Your task to perform on an android device: remove spam from my inbox in the gmail app Image 0: 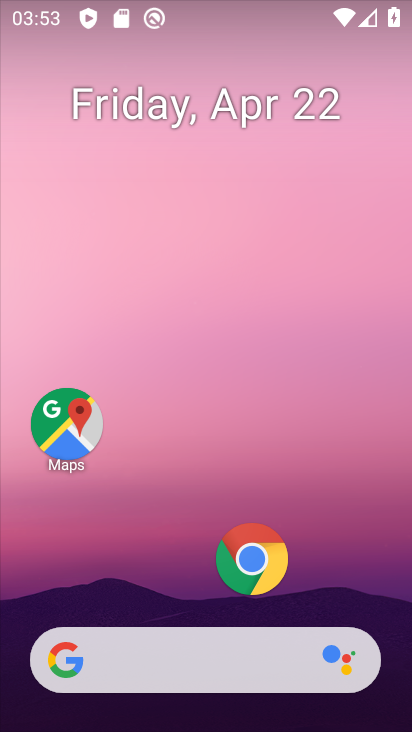
Step 0: drag from (153, 572) to (292, 14)
Your task to perform on an android device: remove spam from my inbox in the gmail app Image 1: 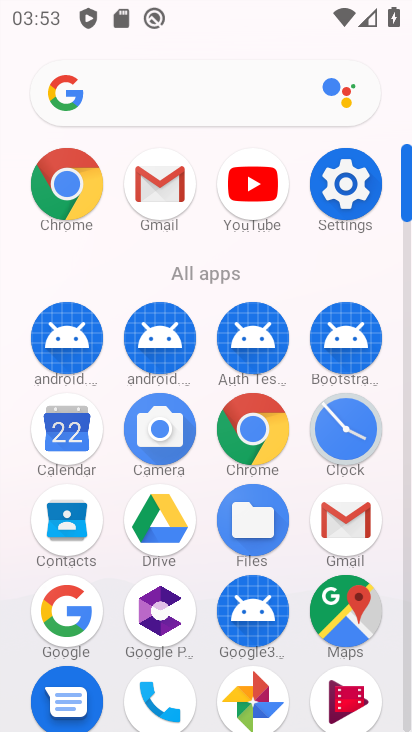
Step 1: click (347, 521)
Your task to perform on an android device: remove spam from my inbox in the gmail app Image 2: 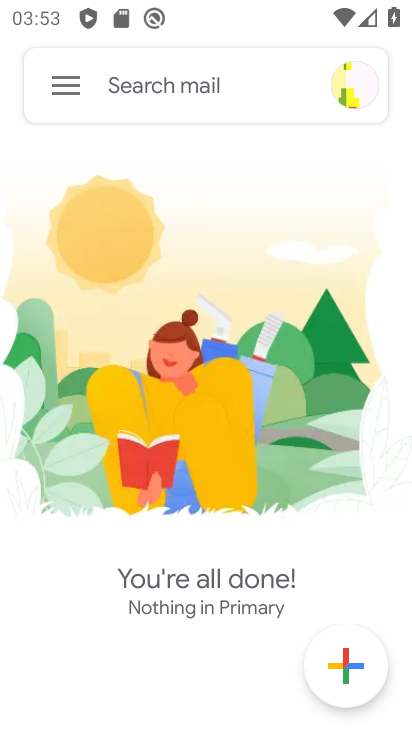
Step 2: click (57, 92)
Your task to perform on an android device: remove spam from my inbox in the gmail app Image 3: 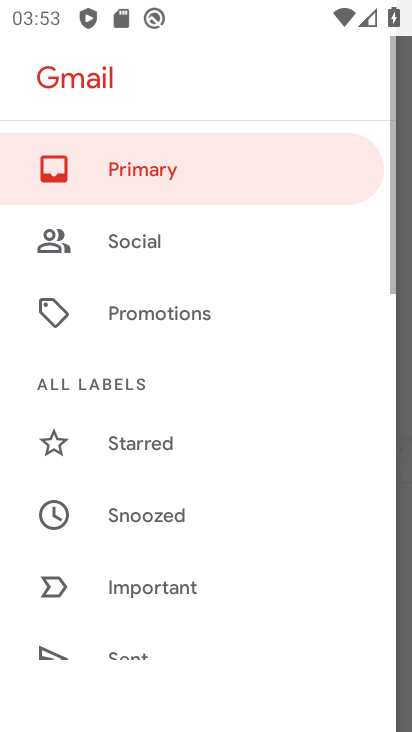
Step 3: drag from (134, 518) to (204, 227)
Your task to perform on an android device: remove spam from my inbox in the gmail app Image 4: 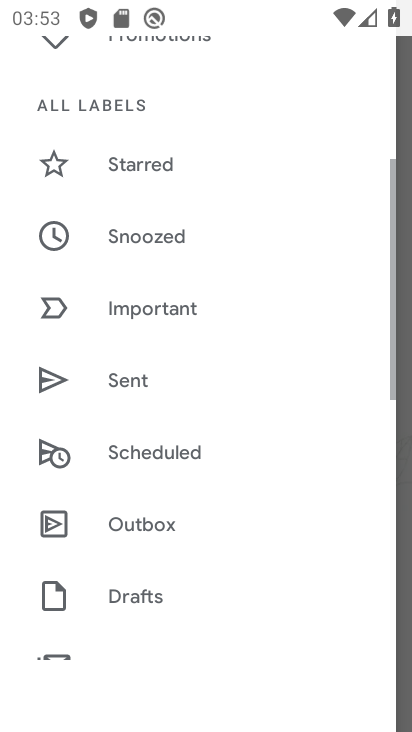
Step 4: drag from (93, 564) to (173, 324)
Your task to perform on an android device: remove spam from my inbox in the gmail app Image 5: 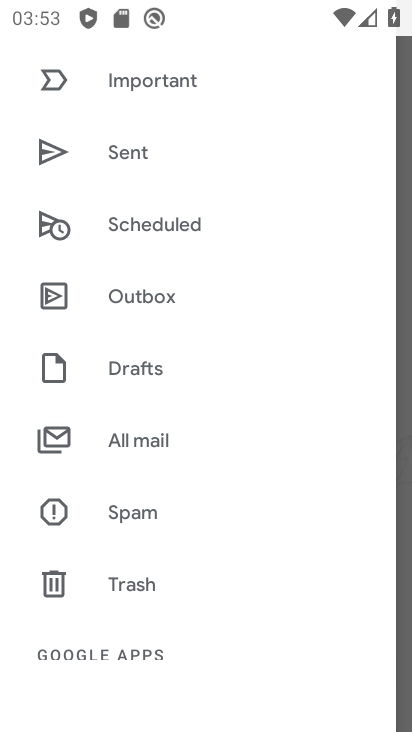
Step 5: click (142, 524)
Your task to perform on an android device: remove spam from my inbox in the gmail app Image 6: 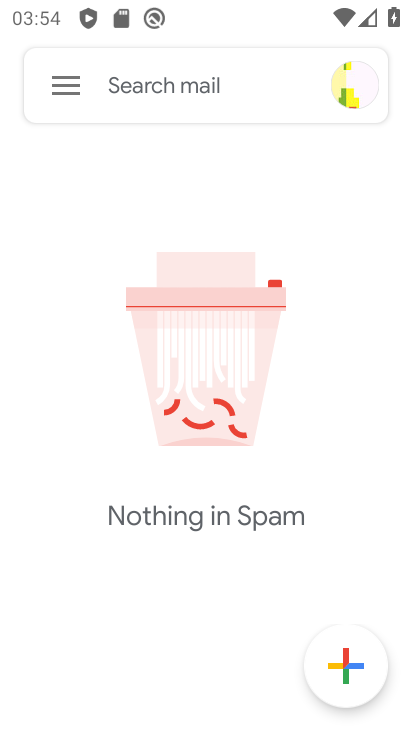
Step 6: task complete